Your task to perform on an android device: Is it going to rain tomorrow? Image 0: 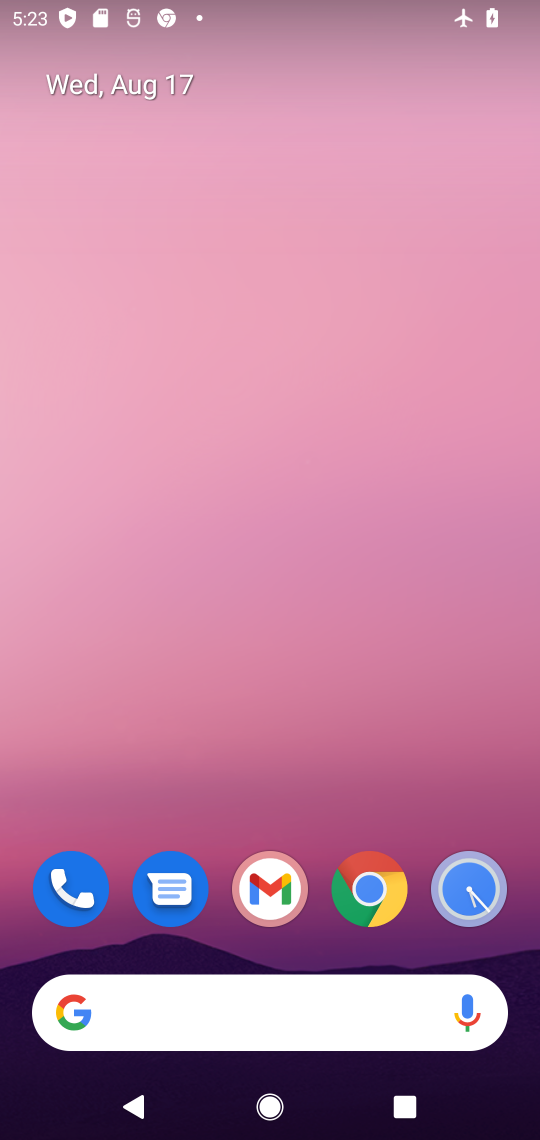
Step 0: drag from (323, 757) to (264, 83)
Your task to perform on an android device: Is it going to rain tomorrow? Image 1: 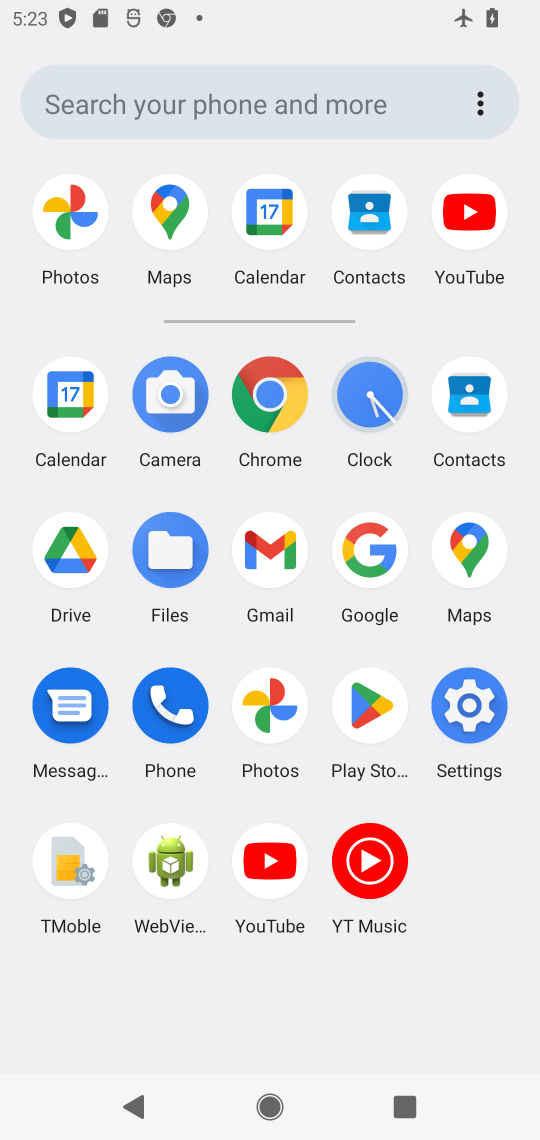
Step 1: click (472, 704)
Your task to perform on an android device: Is it going to rain tomorrow? Image 2: 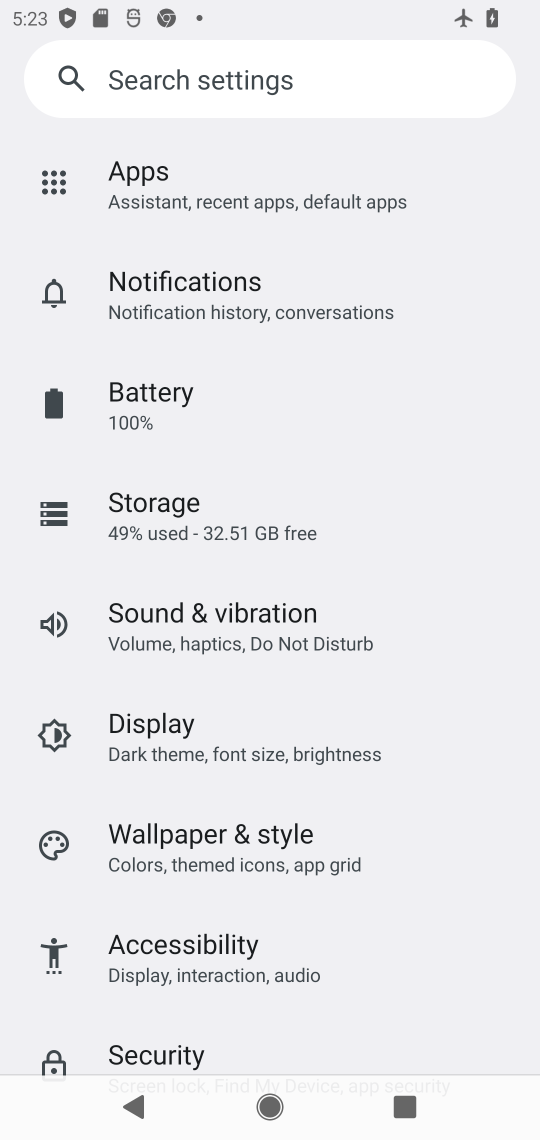
Step 2: press home button
Your task to perform on an android device: Is it going to rain tomorrow? Image 3: 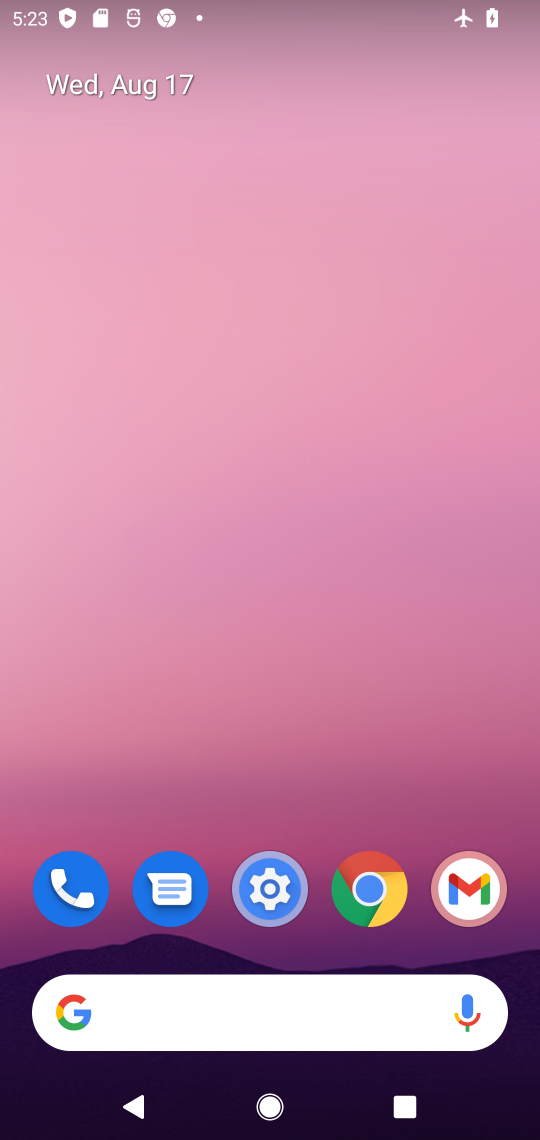
Step 3: click (353, 885)
Your task to perform on an android device: Is it going to rain tomorrow? Image 4: 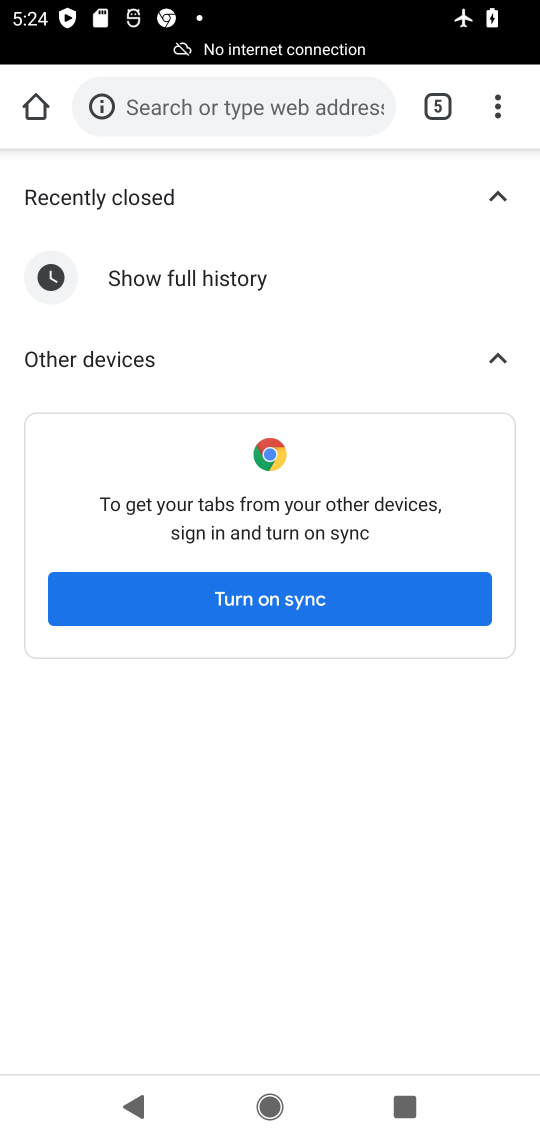
Step 4: task complete